Your task to perform on an android device: change text size in settings app Image 0: 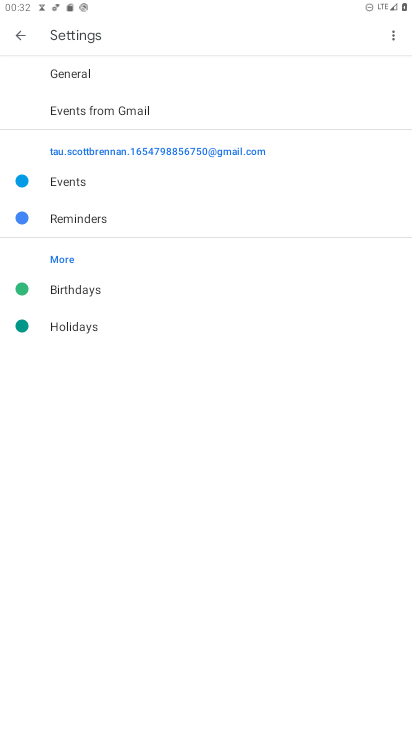
Step 0: press home button
Your task to perform on an android device: change text size in settings app Image 1: 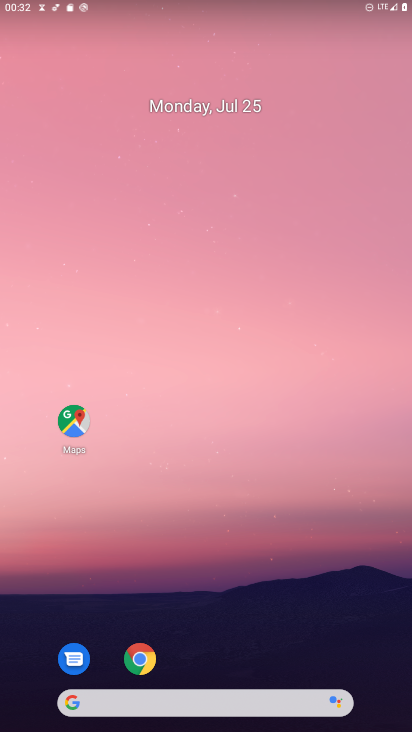
Step 1: drag from (172, 635) to (220, 318)
Your task to perform on an android device: change text size in settings app Image 2: 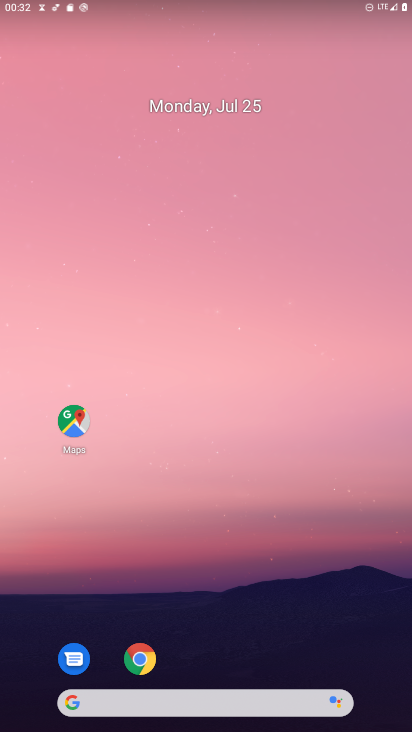
Step 2: drag from (271, 644) to (322, 263)
Your task to perform on an android device: change text size in settings app Image 3: 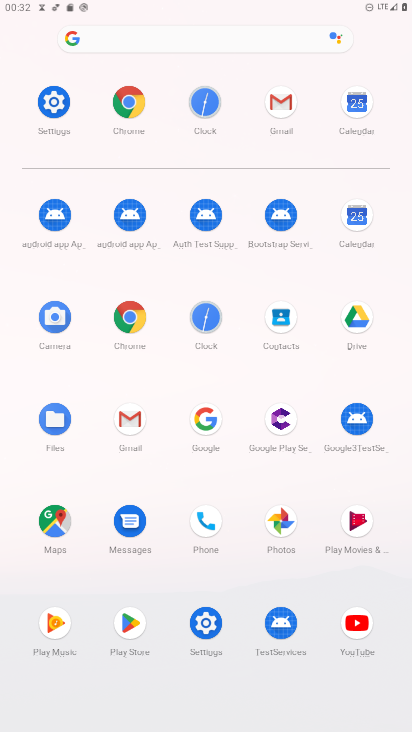
Step 3: click (41, 85)
Your task to perform on an android device: change text size in settings app Image 4: 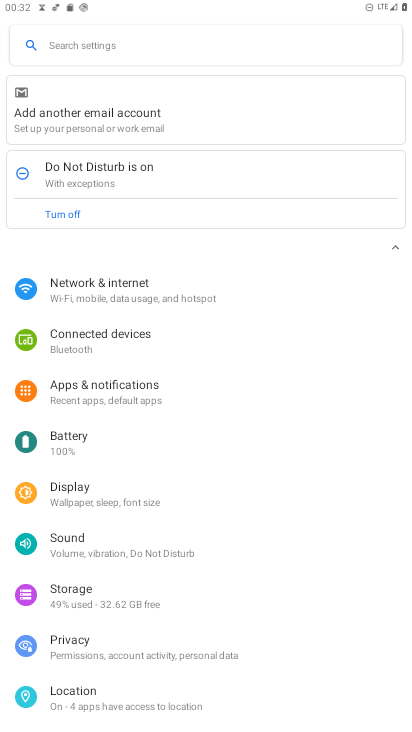
Step 4: drag from (136, 678) to (233, 270)
Your task to perform on an android device: change text size in settings app Image 5: 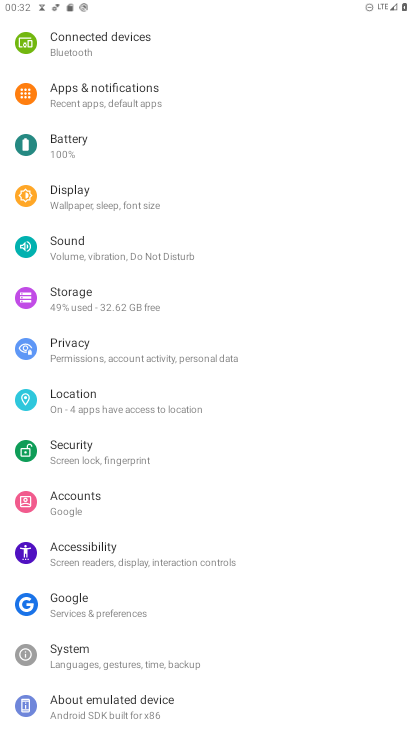
Step 5: drag from (102, 670) to (147, 454)
Your task to perform on an android device: change text size in settings app Image 6: 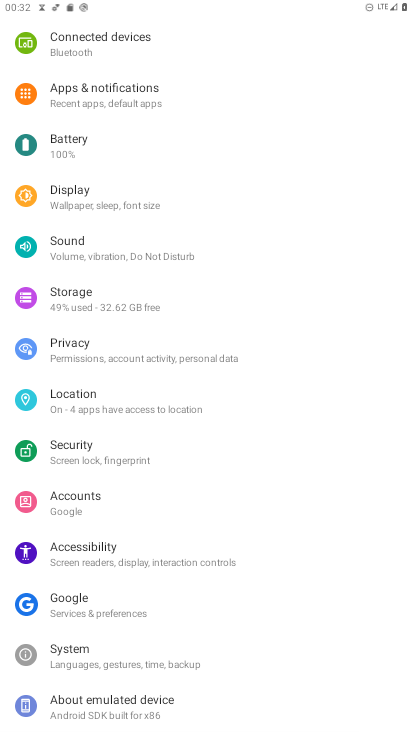
Step 6: click (107, 545)
Your task to perform on an android device: change text size in settings app Image 7: 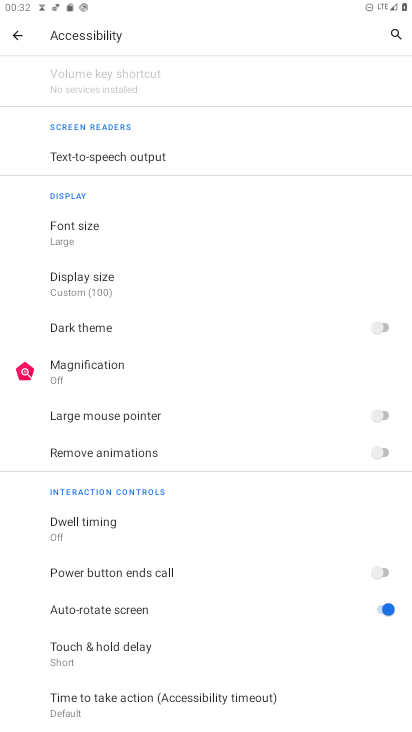
Step 7: click (74, 250)
Your task to perform on an android device: change text size in settings app Image 8: 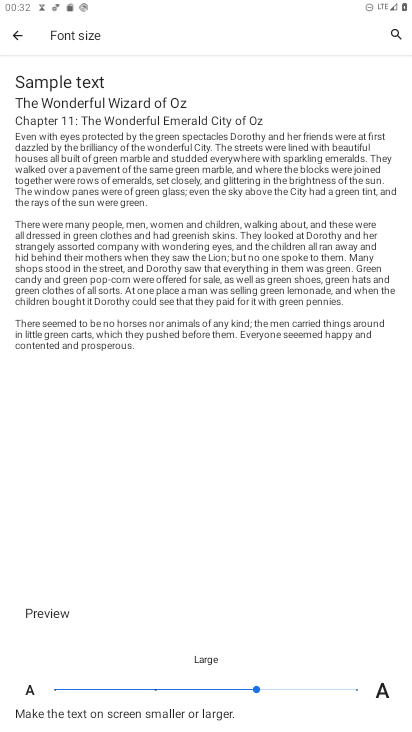
Step 8: click (308, 675)
Your task to perform on an android device: change text size in settings app Image 9: 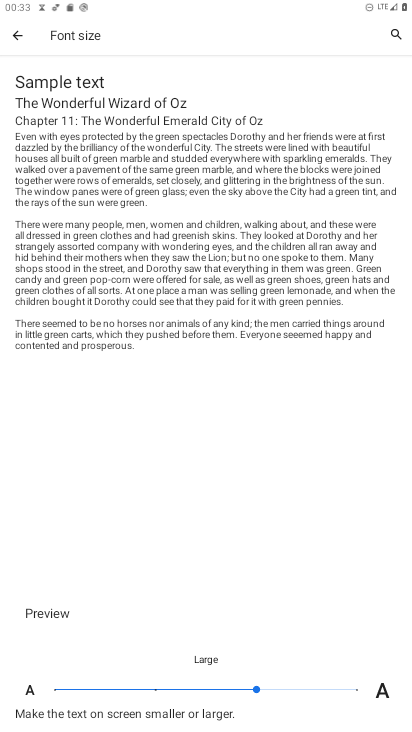
Step 9: task complete